Your task to perform on an android device: Clear the shopping cart on walmart. Add asus zenbook to the cart on walmart Image 0: 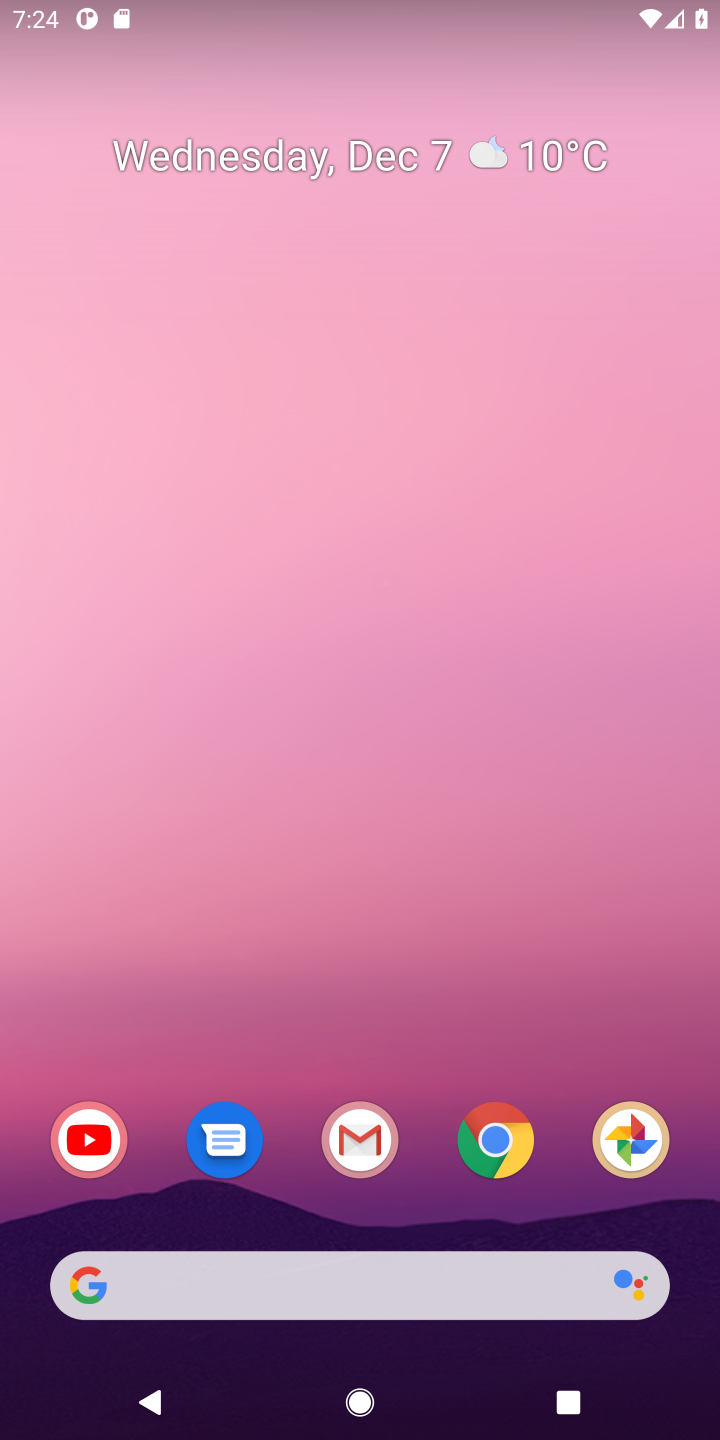
Step 0: press home button
Your task to perform on an android device: Clear the shopping cart on walmart. Add asus zenbook to the cart on walmart Image 1: 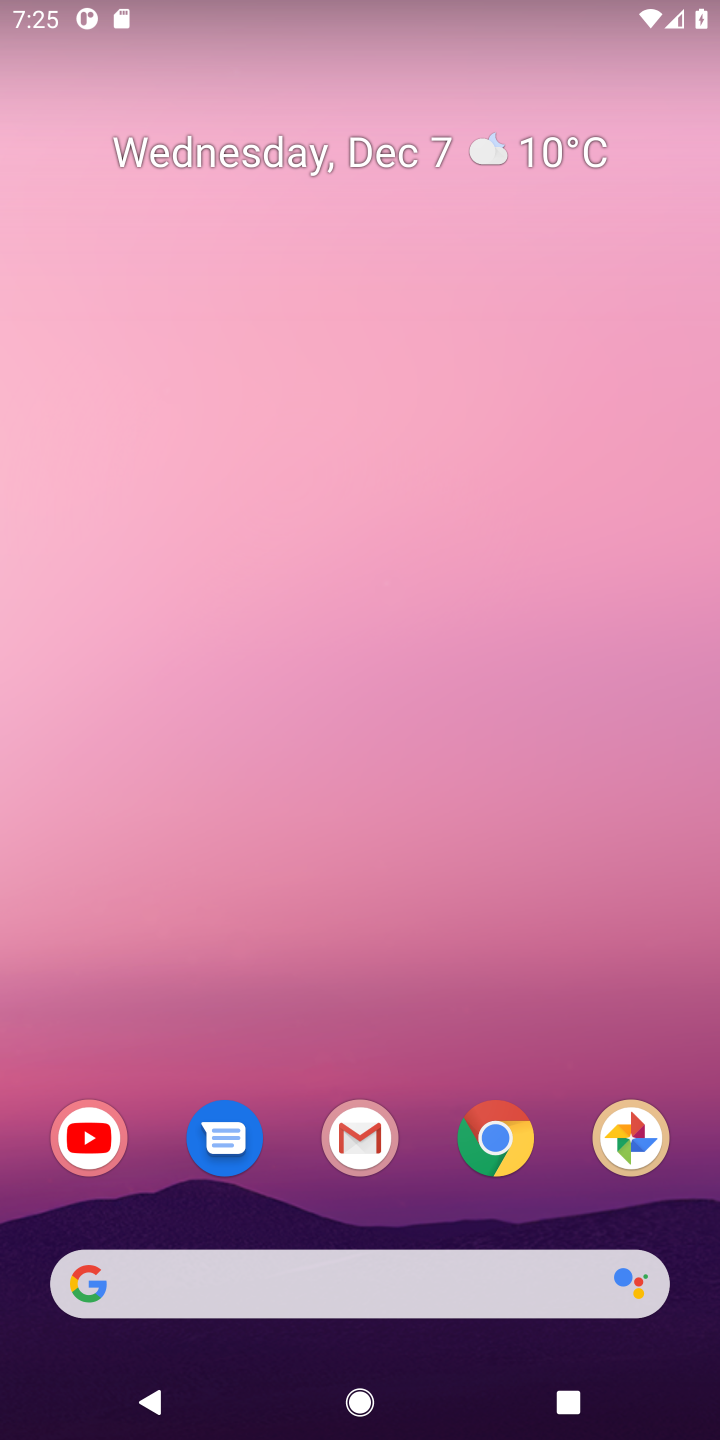
Step 1: click (136, 1282)
Your task to perform on an android device: Clear the shopping cart on walmart. Add asus zenbook to the cart on walmart Image 2: 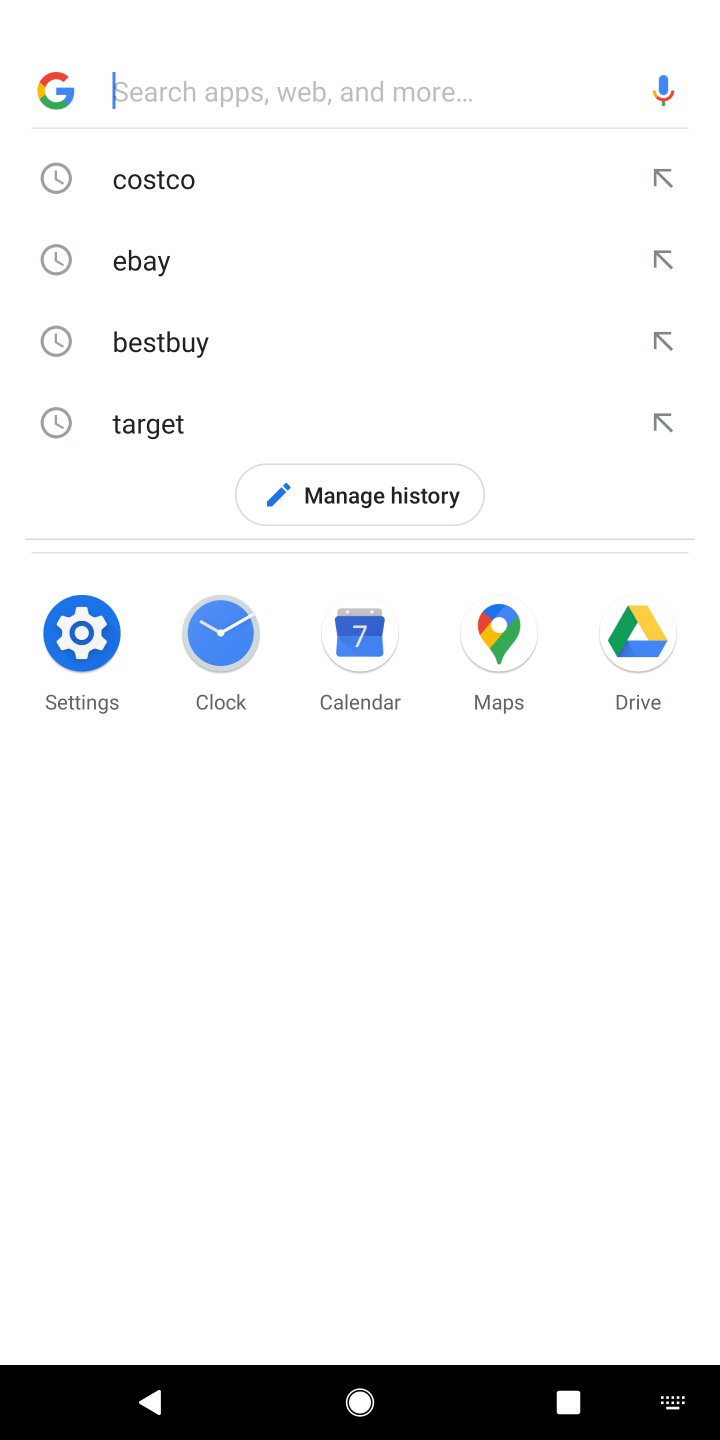
Step 2: type "walmart"
Your task to perform on an android device: Clear the shopping cart on walmart. Add asus zenbook to the cart on walmart Image 3: 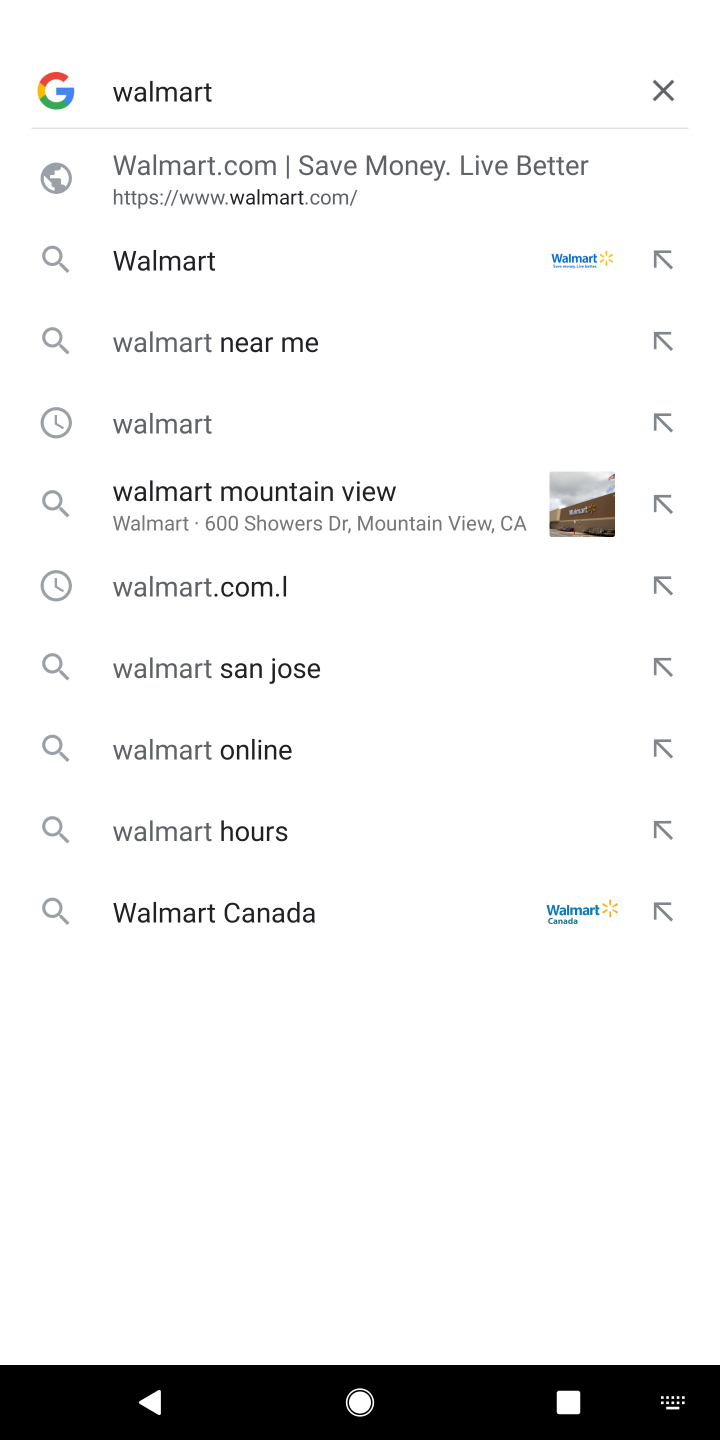
Step 3: press enter
Your task to perform on an android device: Clear the shopping cart on walmart. Add asus zenbook to the cart on walmart Image 4: 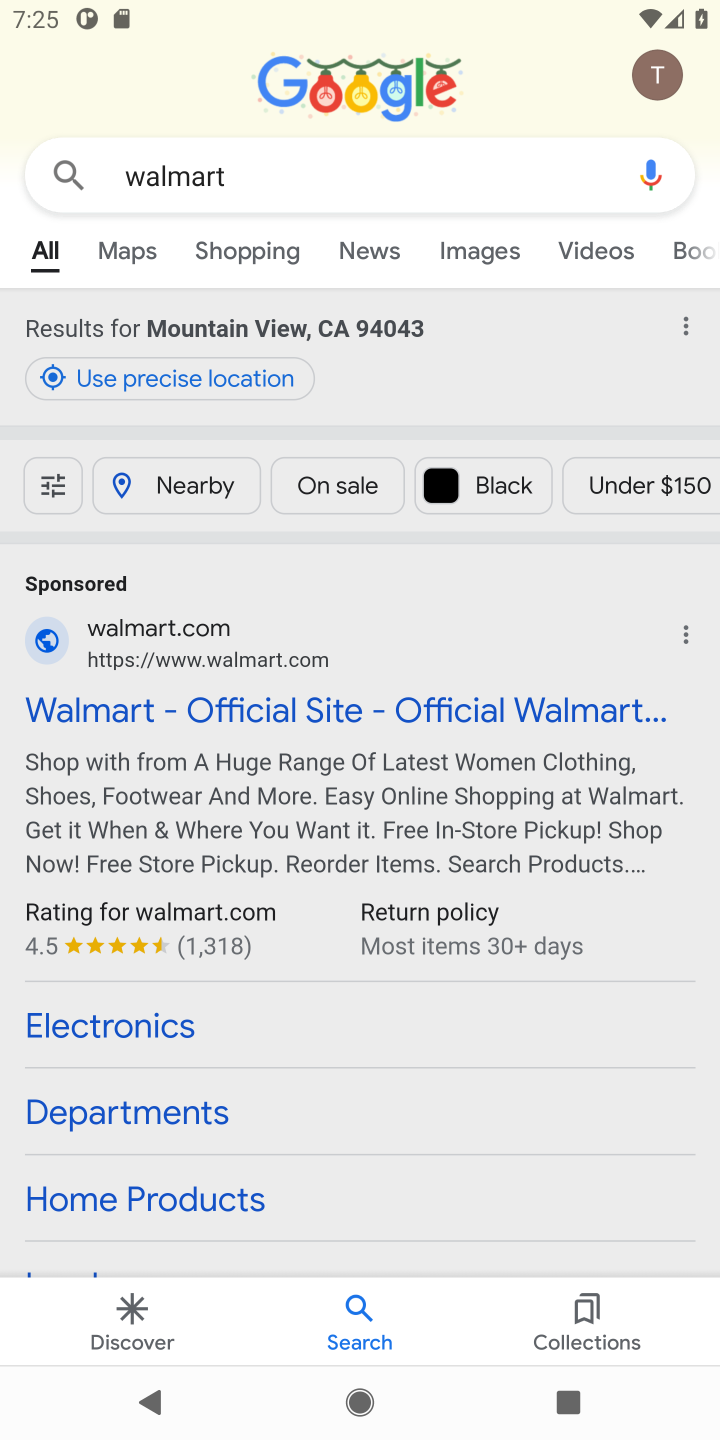
Step 4: click (238, 705)
Your task to perform on an android device: Clear the shopping cart on walmart. Add asus zenbook to the cart on walmart Image 5: 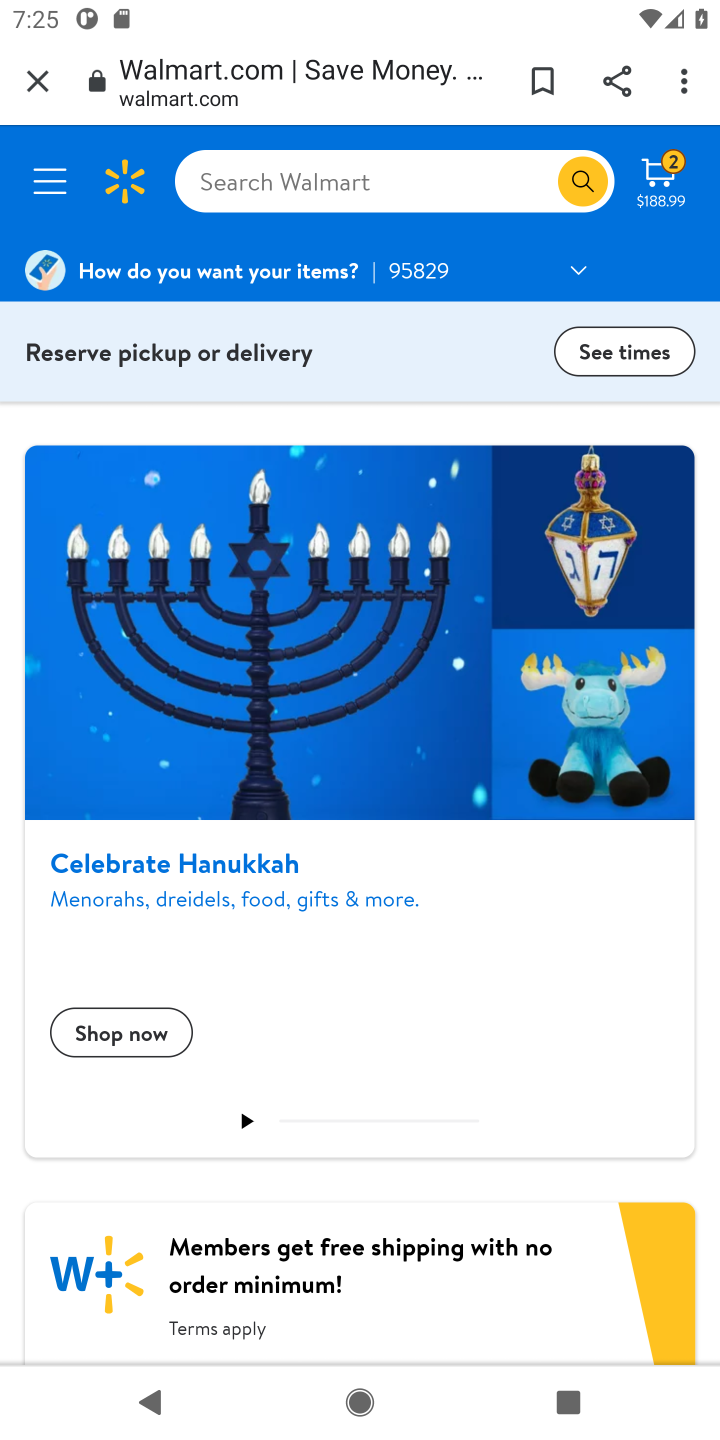
Step 5: click (662, 172)
Your task to perform on an android device: Clear the shopping cart on walmart. Add asus zenbook to the cart on walmart Image 6: 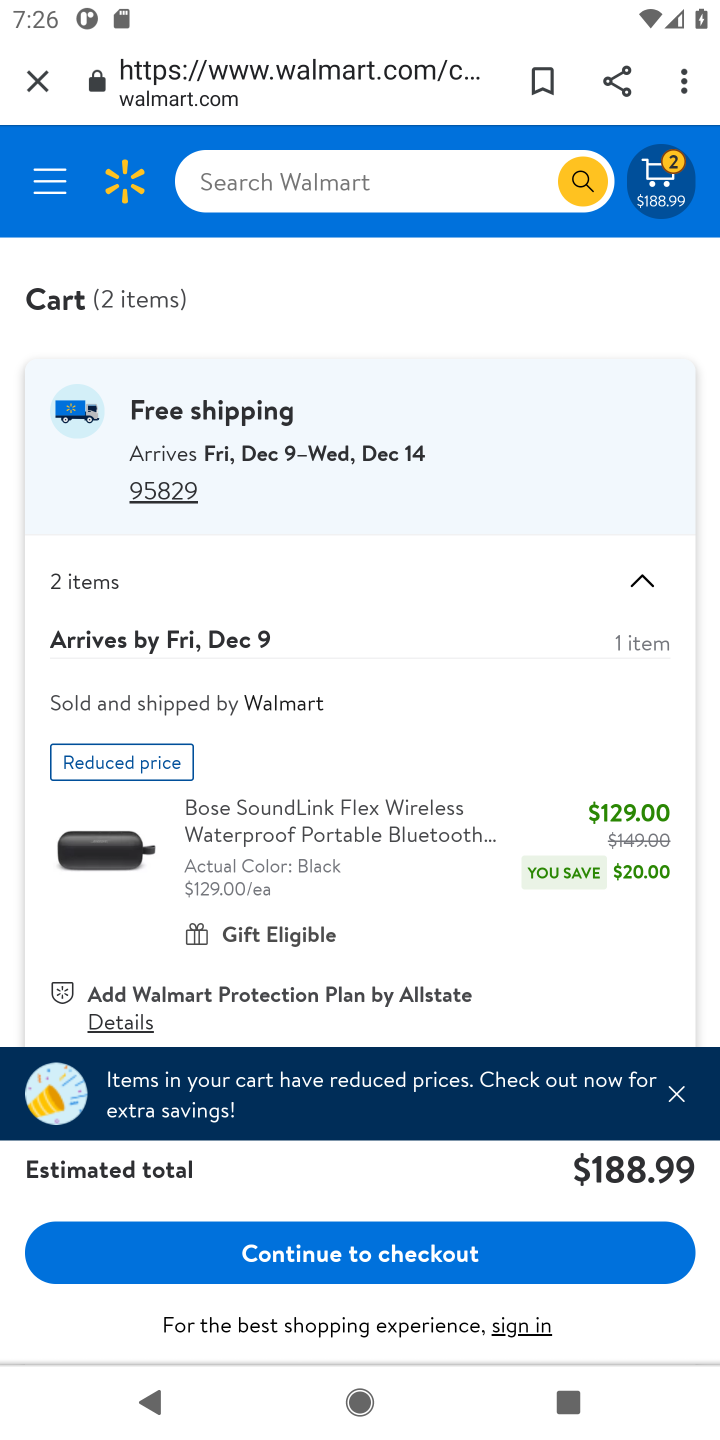
Step 6: drag from (382, 963) to (396, 395)
Your task to perform on an android device: Clear the shopping cart on walmart. Add asus zenbook to the cart on walmart Image 7: 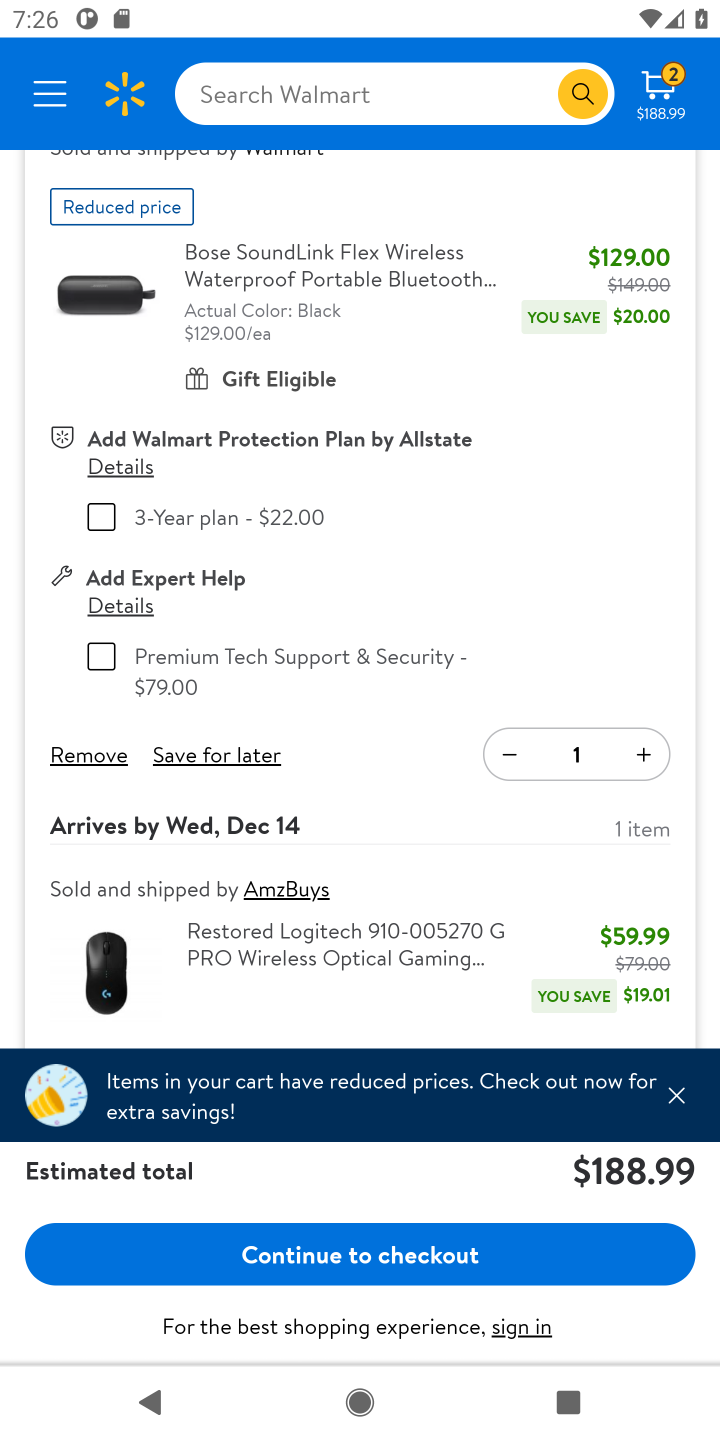
Step 7: click (86, 759)
Your task to perform on an android device: Clear the shopping cart on walmart. Add asus zenbook to the cart on walmart Image 8: 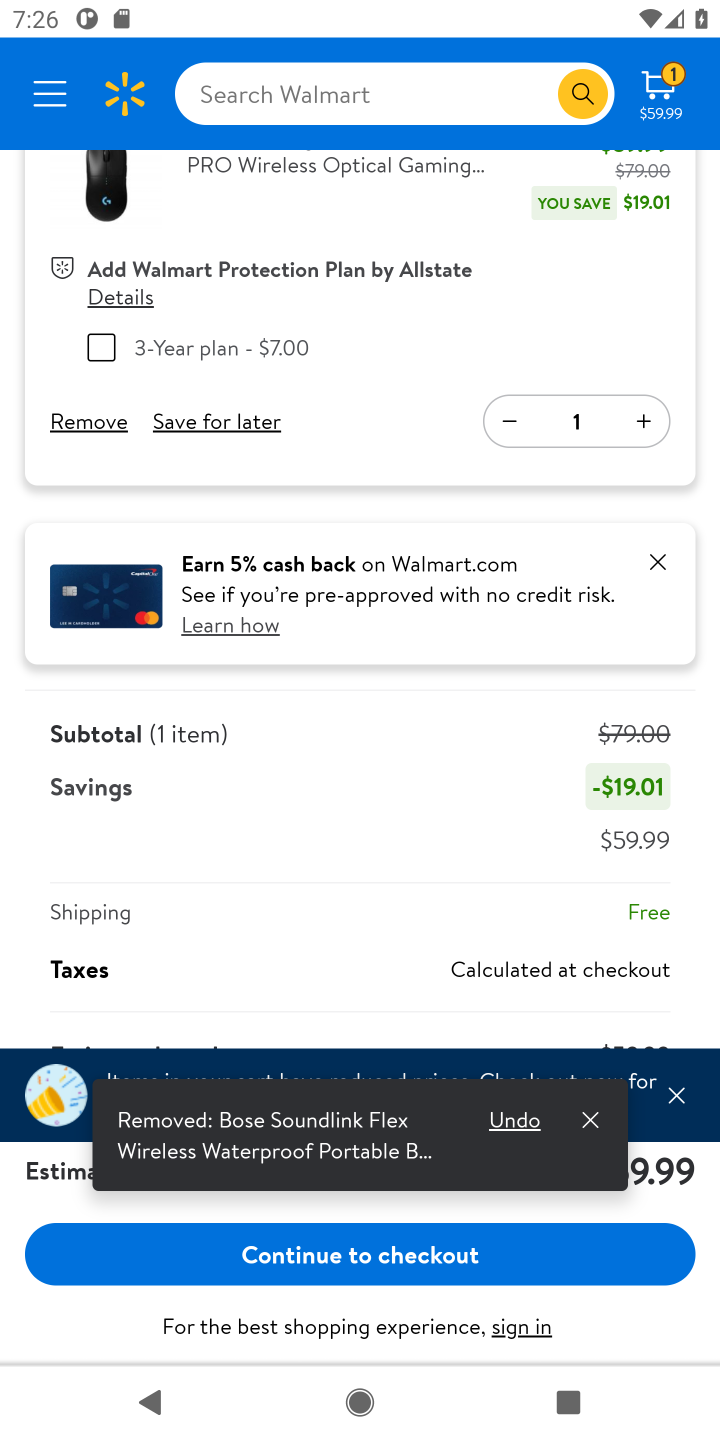
Step 8: click (75, 427)
Your task to perform on an android device: Clear the shopping cart on walmart. Add asus zenbook to the cart on walmart Image 9: 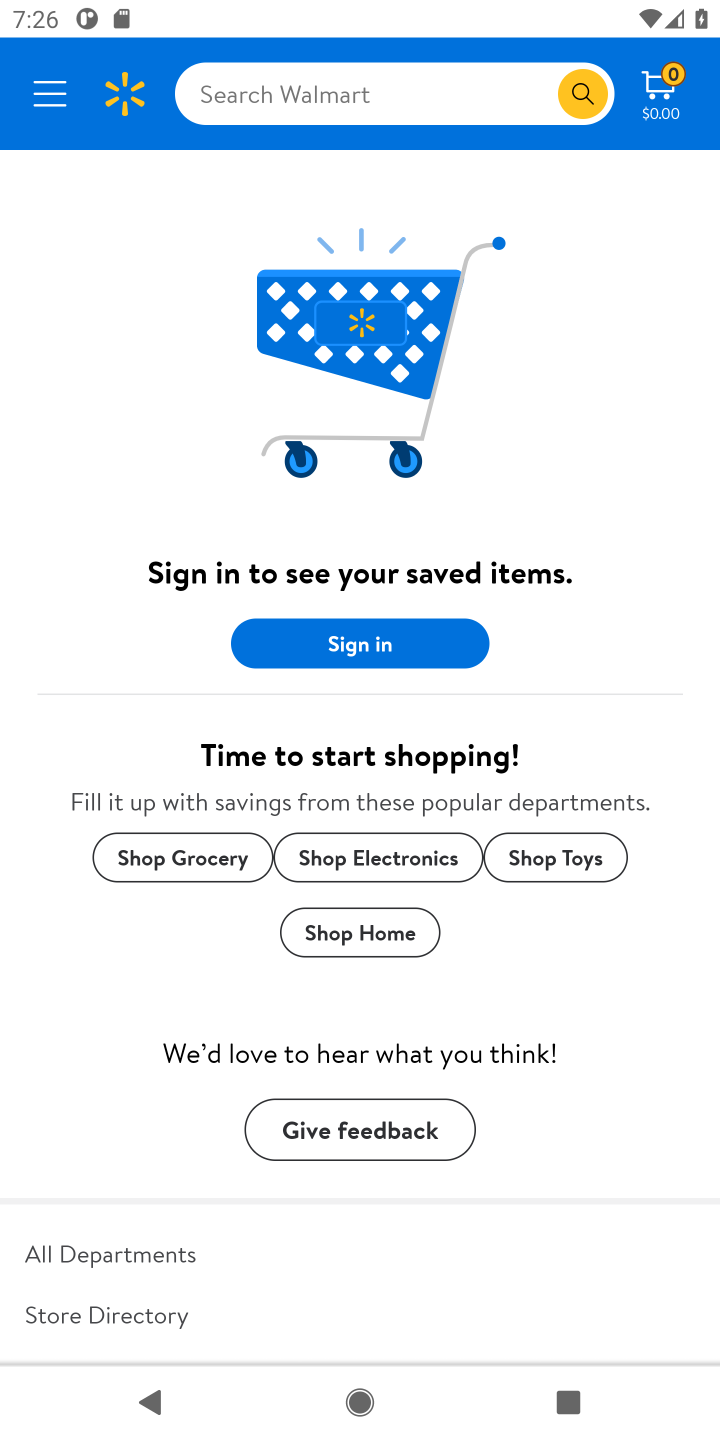
Step 9: click (245, 84)
Your task to perform on an android device: Clear the shopping cart on walmart. Add asus zenbook to the cart on walmart Image 10: 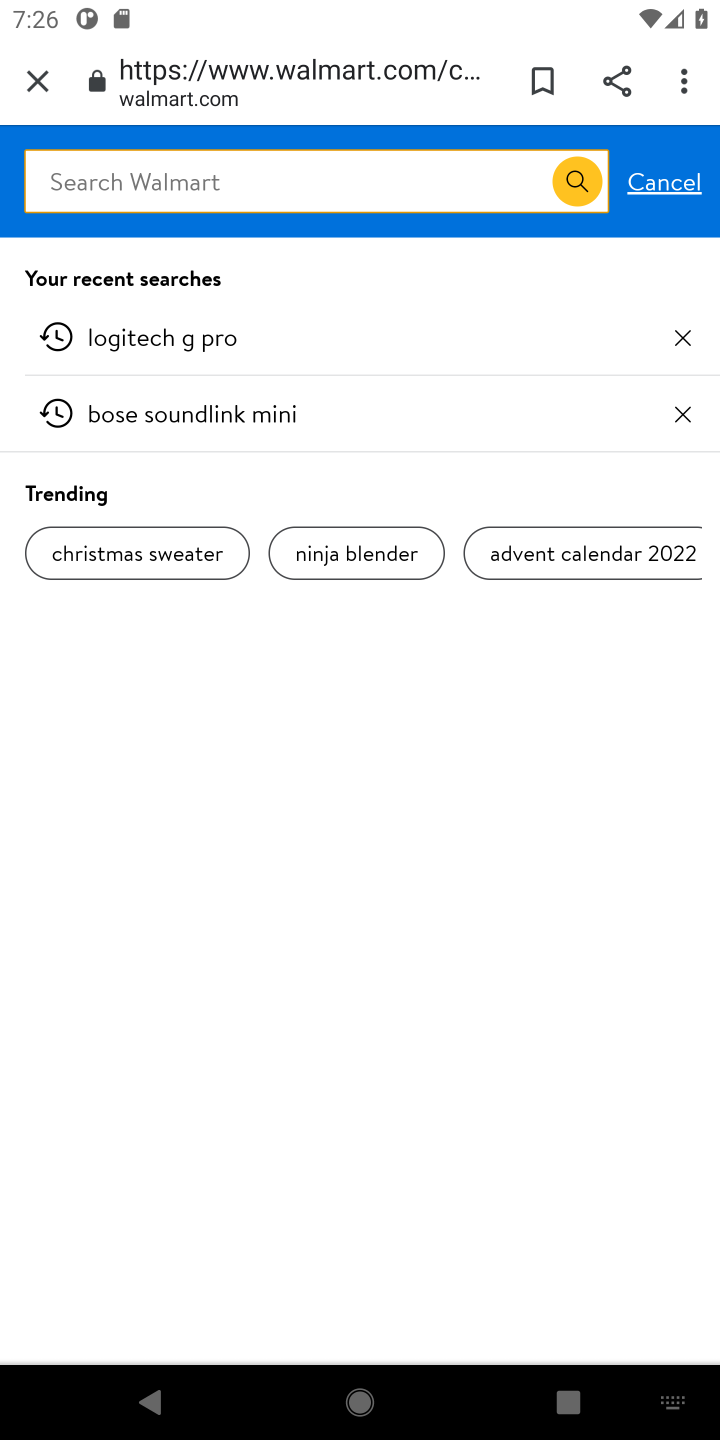
Step 10: type "asus zenbook"
Your task to perform on an android device: Clear the shopping cart on walmart. Add asus zenbook to the cart on walmart Image 11: 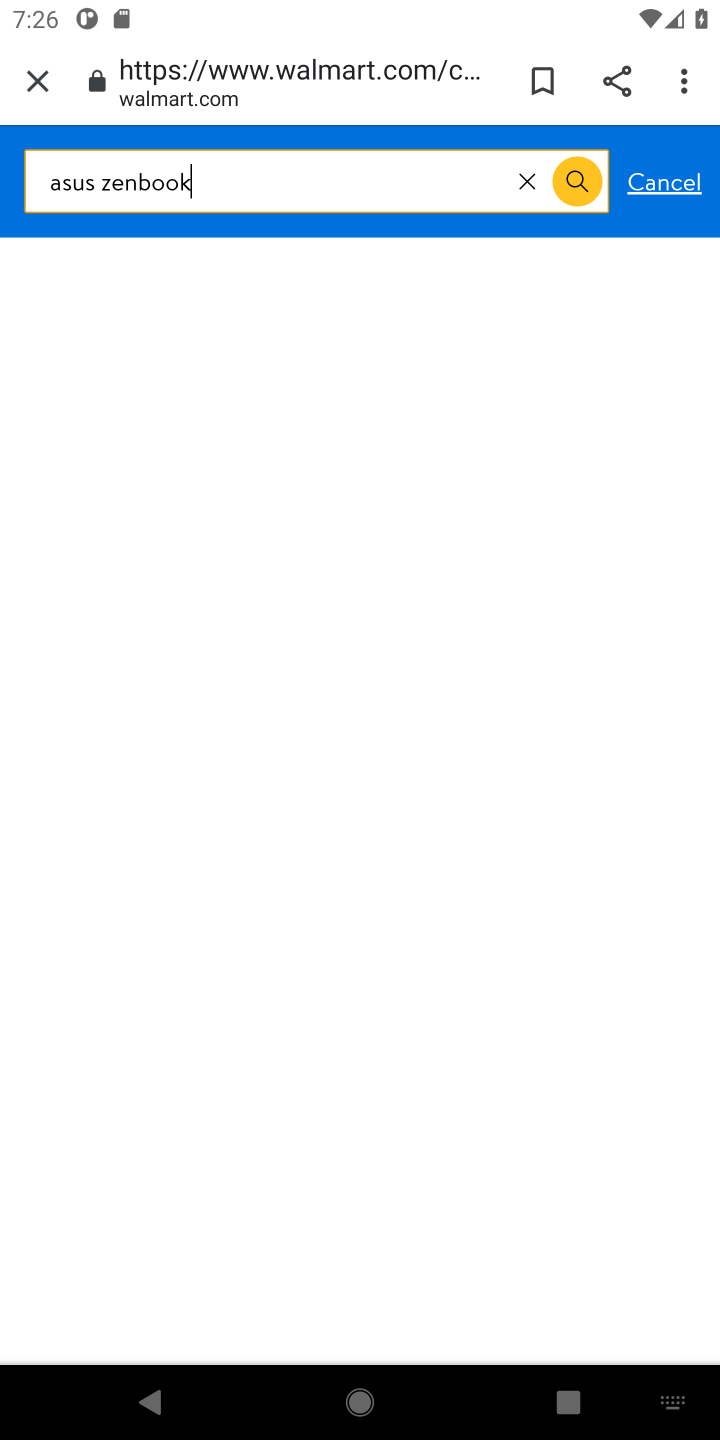
Step 11: press enter
Your task to perform on an android device: Clear the shopping cart on walmart. Add asus zenbook to the cart on walmart Image 12: 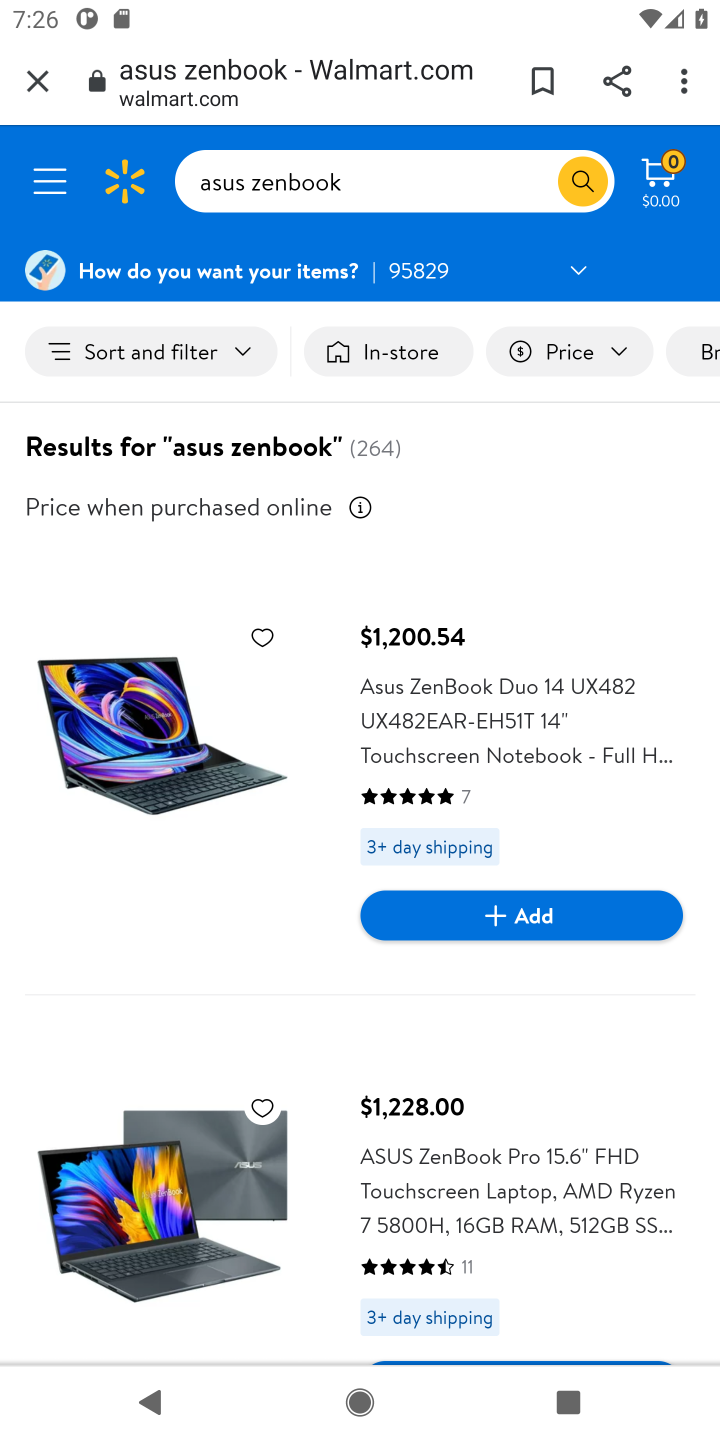
Step 12: click (527, 916)
Your task to perform on an android device: Clear the shopping cart on walmart. Add asus zenbook to the cart on walmart Image 13: 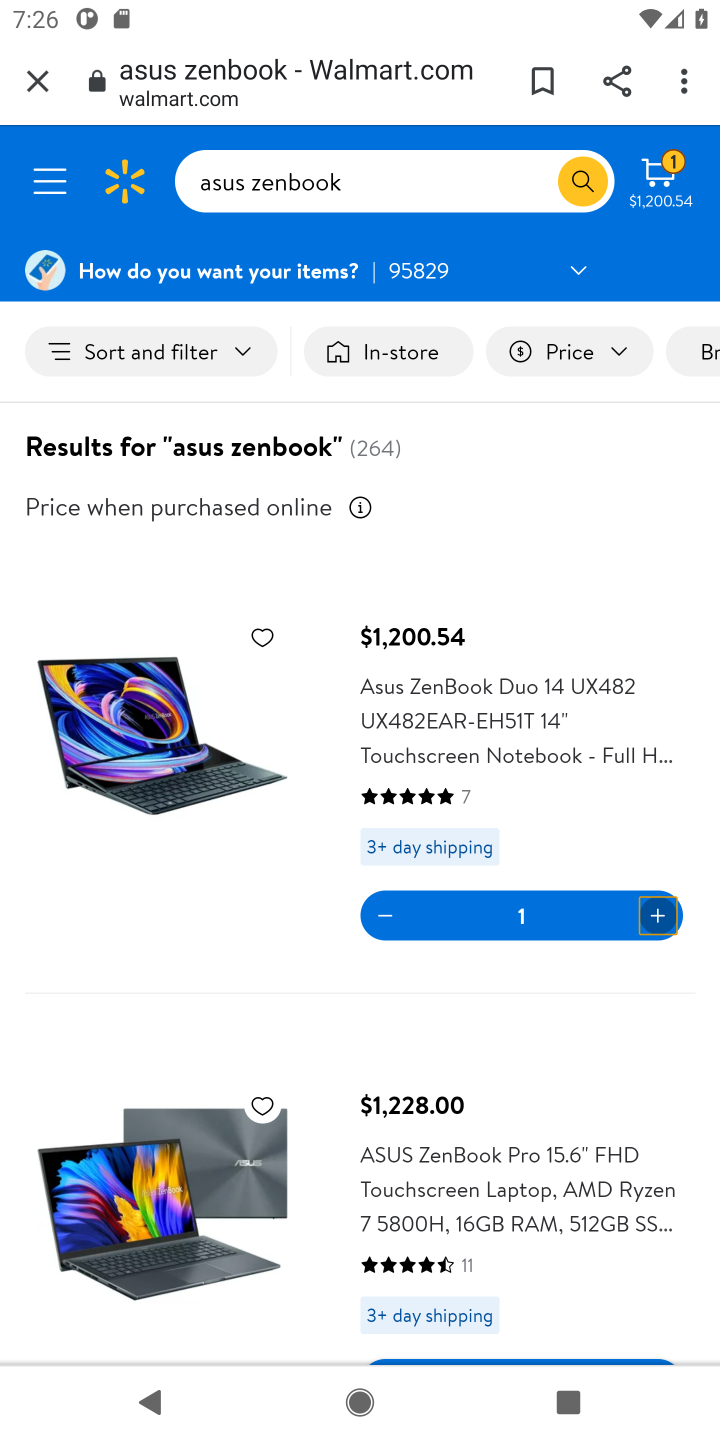
Step 13: task complete